Your task to perform on an android device: find snoozed emails in the gmail app Image 0: 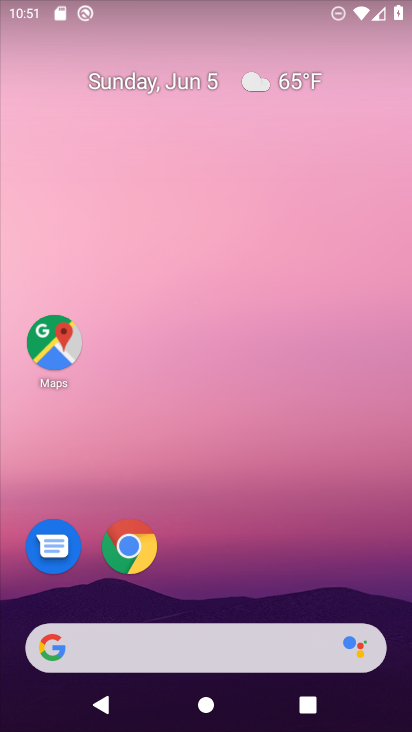
Step 0: drag from (247, 595) to (312, 150)
Your task to perform on an android device: find snoozed emails in the gmail app Image 1: 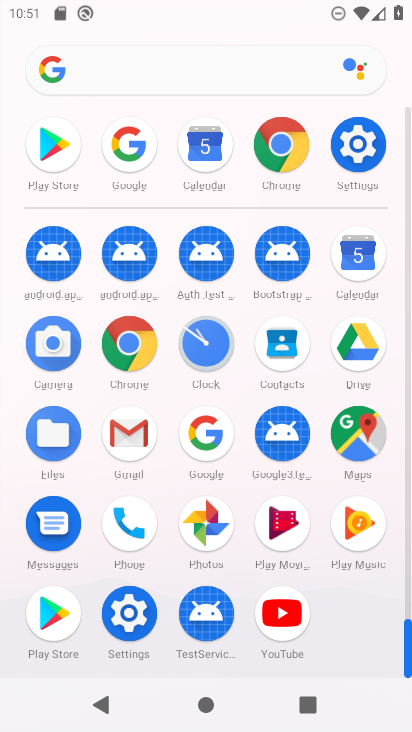
Step 1: click (124, 447)
Your task to perform on an android device: find snoozed emails in the gmail app Image 2: 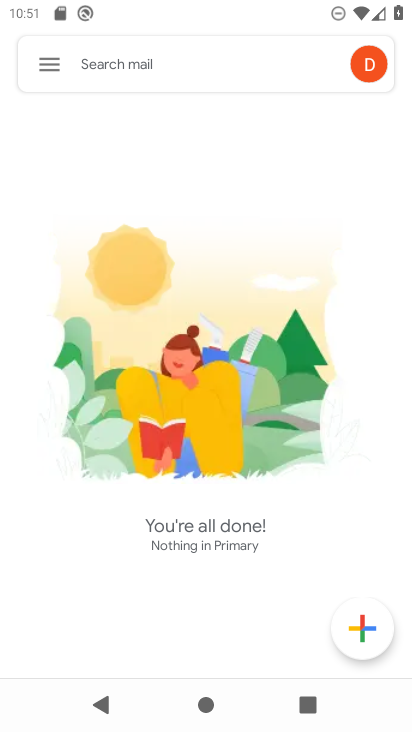
Step 2: click (61, 63)
Your task to perform on an android device: find snoozed emails in the gmail app Image 3: 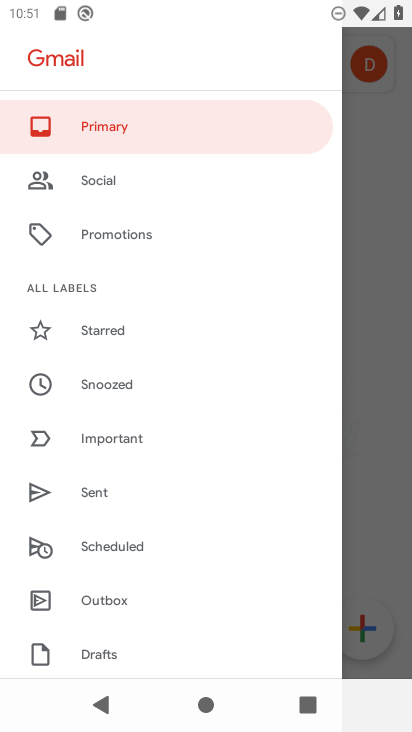
Step 3: click (101, 396)
Your task to perform on an android device: find snoozed emails in the gmail app Image 4: 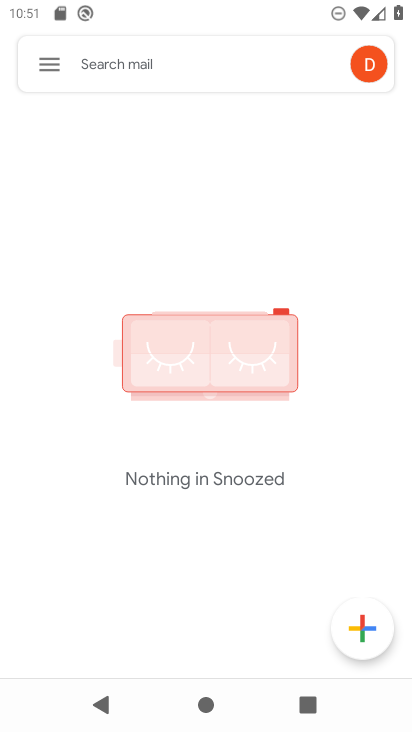
Step 4: task complete